Your task to perform on an android device: Open calendar and show me the fourth week of next month Image 0: 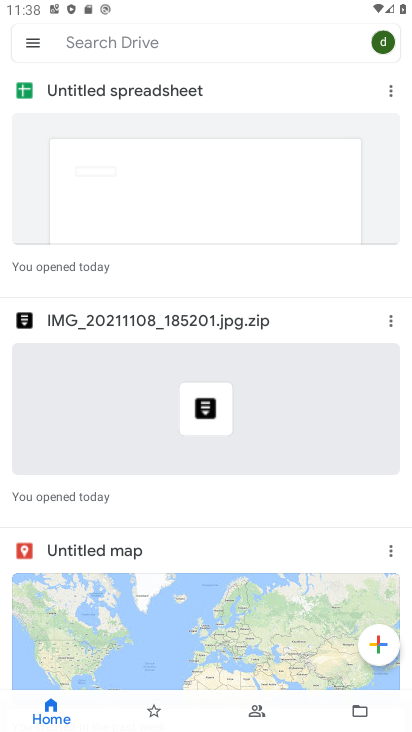
Step 0: press home button
Your task to perform on an android device: Open calendar and show me the fourth week of next month Image 1: 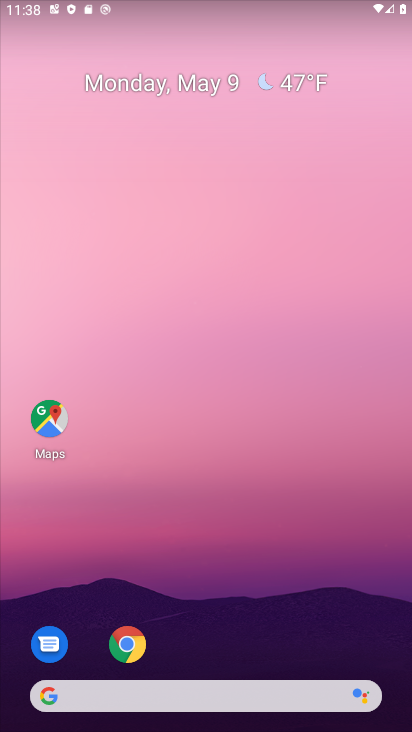
Step 1: drag from (0, 657) to (306, 142)
Your task to perform on an android device: Open calendar and show me the fourth week of next month Image 2: 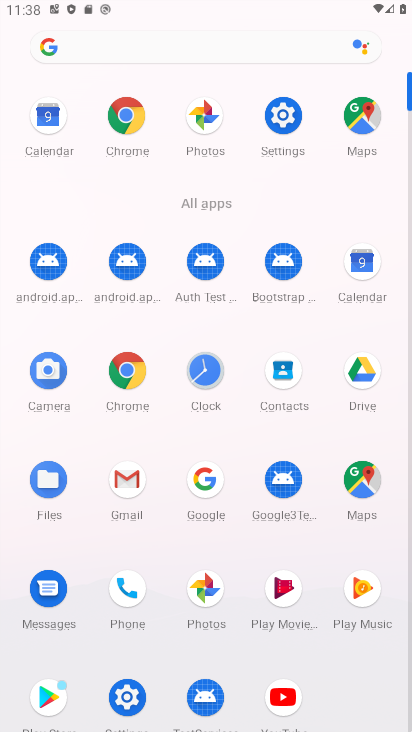
Step 2: click (357, 266)
Your task to perform on an android device: Open calendar and show me the fourth week of next month Image 3: 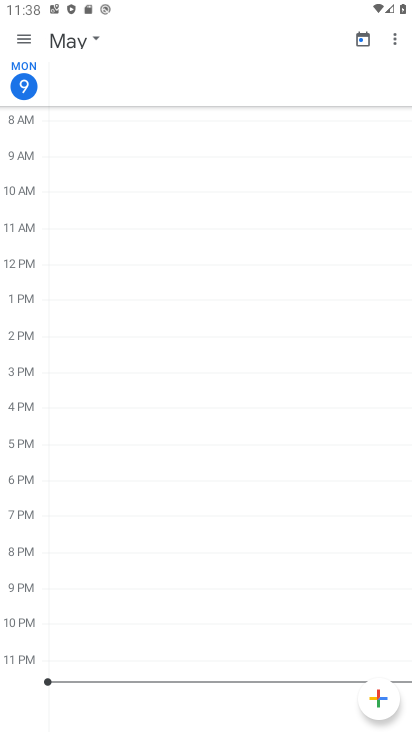
Step 3: click (82, 38)
Your task to perform on an android device: Open calendar and show me the fourth week of next month Image 4: 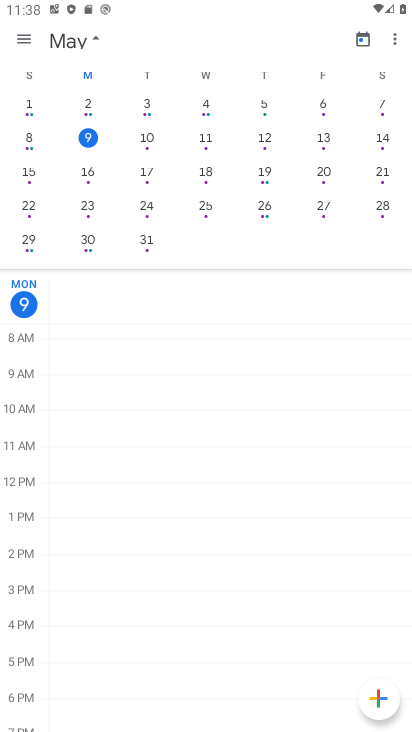
Step 4: drag from (325, 187) to (42, 128)
Your task to perform on an android device: Open calendar and show me the fourth week of next month Image 5: 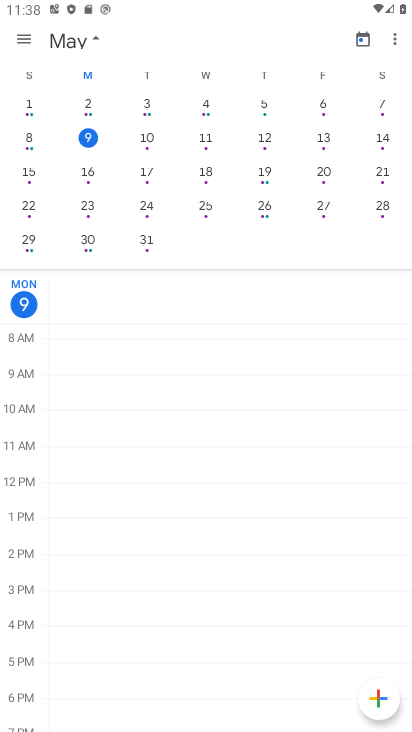
Step 5: drag from (383, 99) to (11, 52)
Your task to perform on an android device: Open calendar and show me the fourth week of next month Image 6: 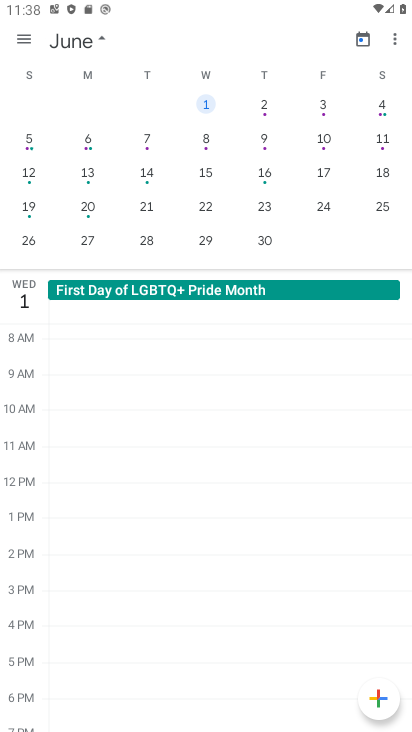
Step 6: click (249, 130)
Your task to perform on an android device: Open calendar and show me the fourth week of next month Image 7: 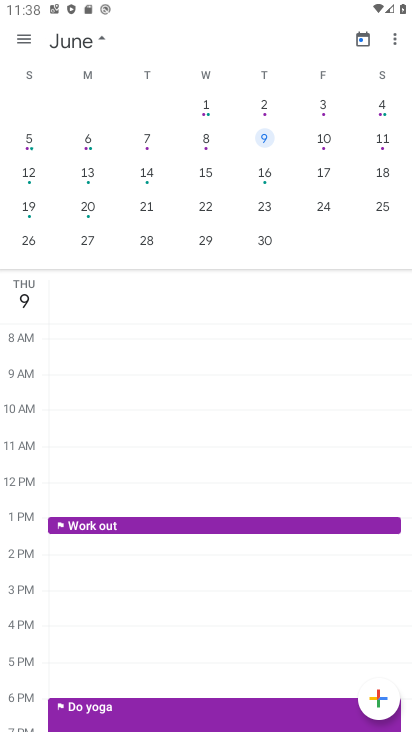
Step 7: click (329, 142)
Your task to perform on an android device: Open calendar and show me the fourth week of next month Image 8: 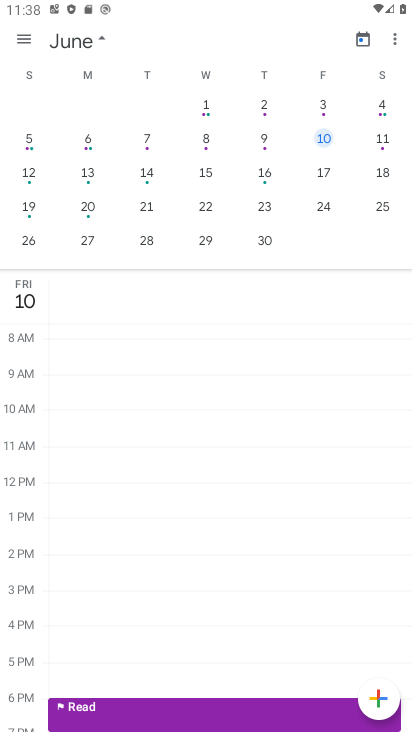
Step 8: click (189, 133)
Your task to perform on an android device: Open calendar and show me the fourth week of next month Image 9: 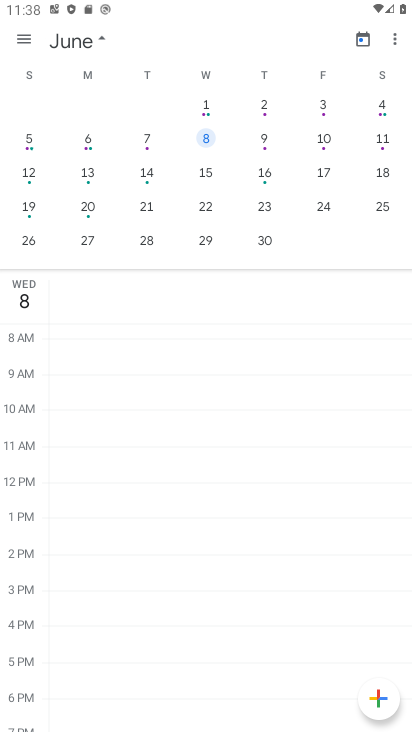
Step 9: click (390, 143)
Your task to perform on an android device: Open calendar and show me the fourth week of next month Image 10: 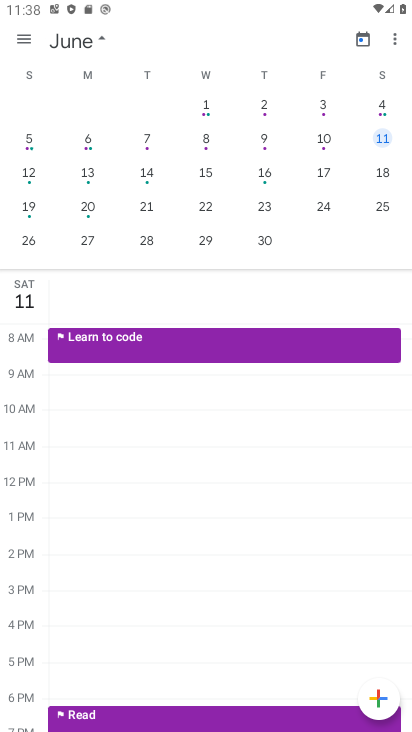
Step 10: task complete